Your task to perform on an android device: Search for sushi restaurants on Maps Image 0: 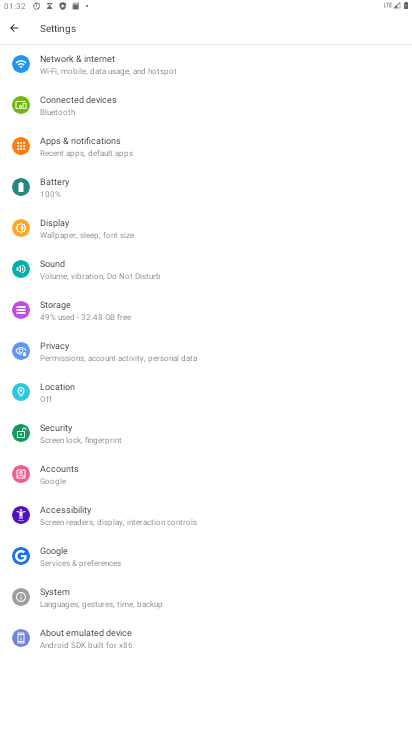
Step 0: press home button
Your task to perform on an android device: Search for sushi restaurants on Maps Image 1: 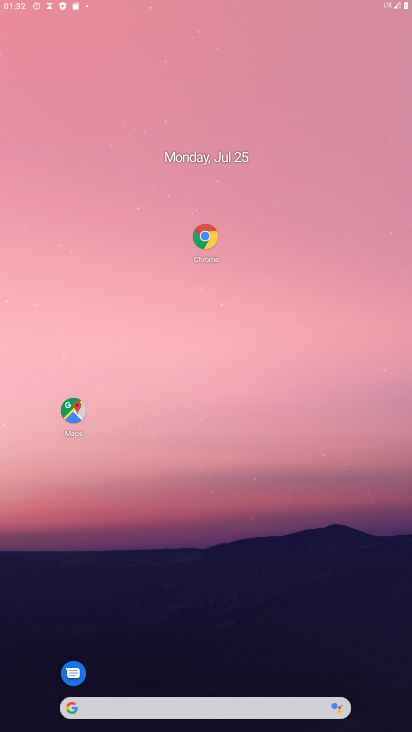
Step 1: drag from (283, 718) to (324, 30)
Your task to perform on an android device: Search for sushi restaurants on Maps Image 2: 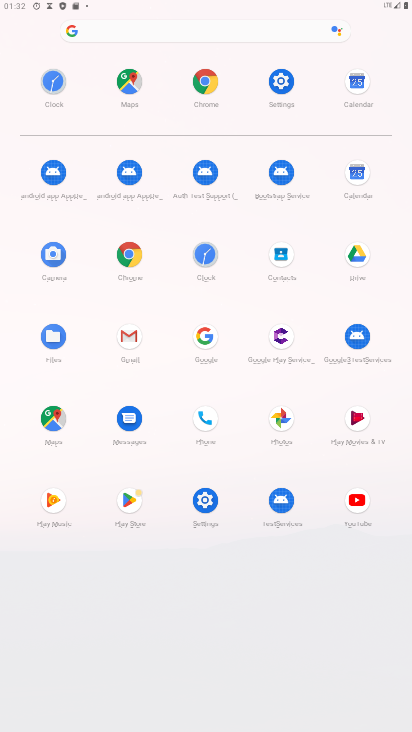
Step 2: click (54, 424)
Your task to perform on an android device: Search for sushi restaurants on Maps Image 3: 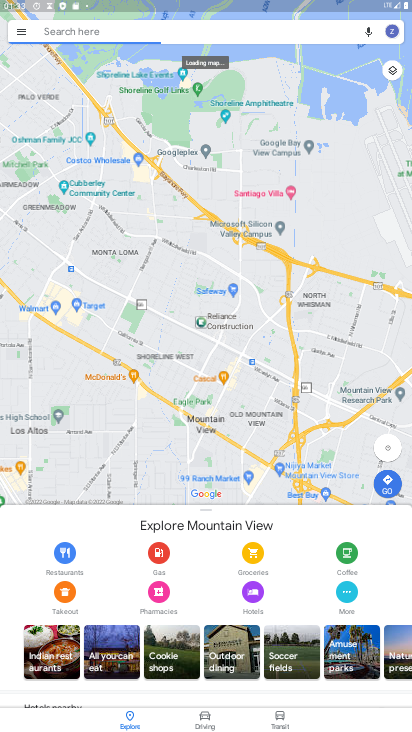
Step 3: click (113, 32)
Your task to perform on an android device: Search for sushi restaurants on Maps Image 4: 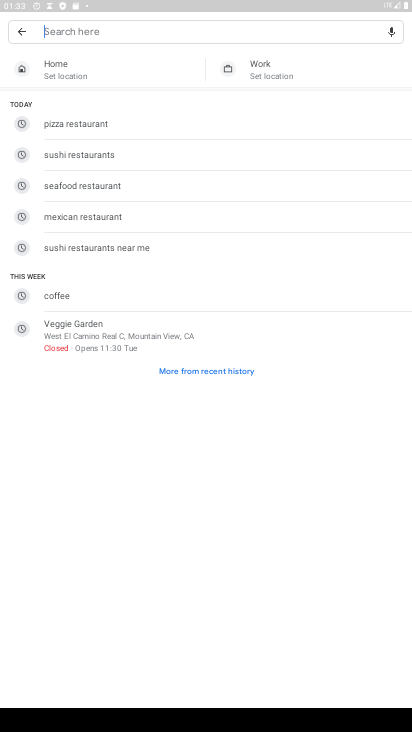
Step 4: click (83, 158)
Your task to perform on an android device: Search for sushi restaurants on Maps Image 5: 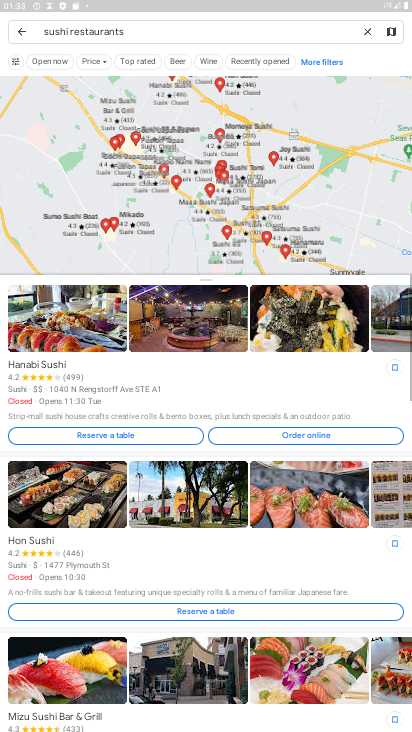
Step 5: task complete